Your task to perform on an android device: Go to internet settings Image 0: 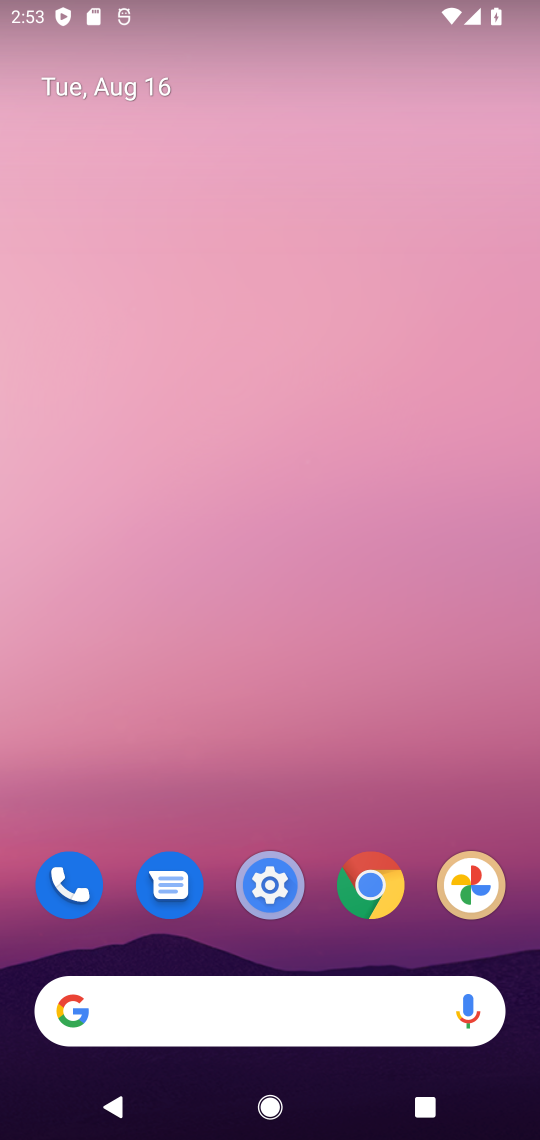
Step 0: drag from (357, 895) to (522, 34)
Your task to perform on an android device: Go to internet settings Image 1: 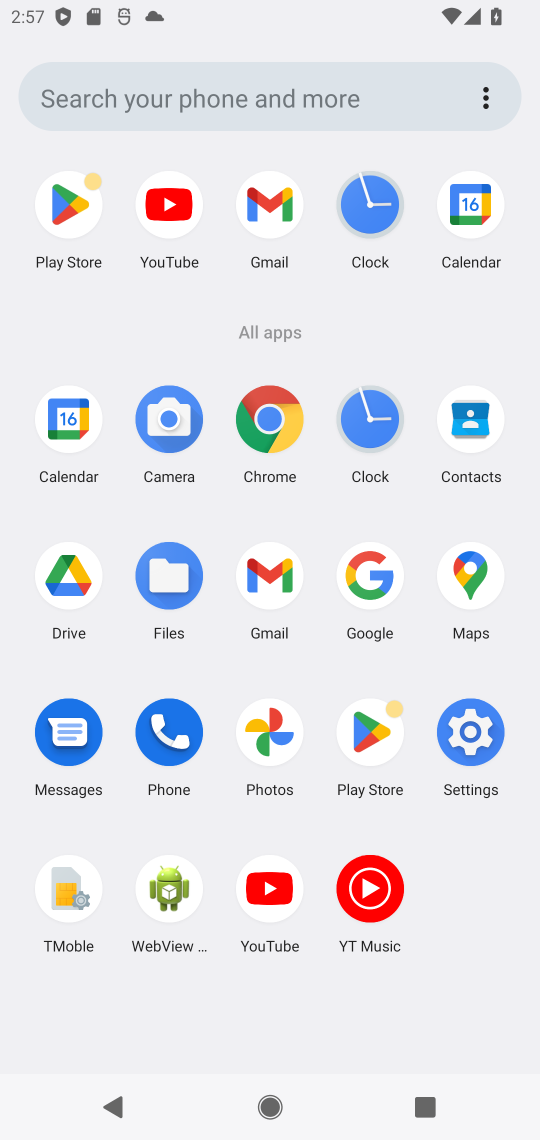
Step 1: click (490, 725)
Your task to perform on an android device: Go to internet settings Image 2: 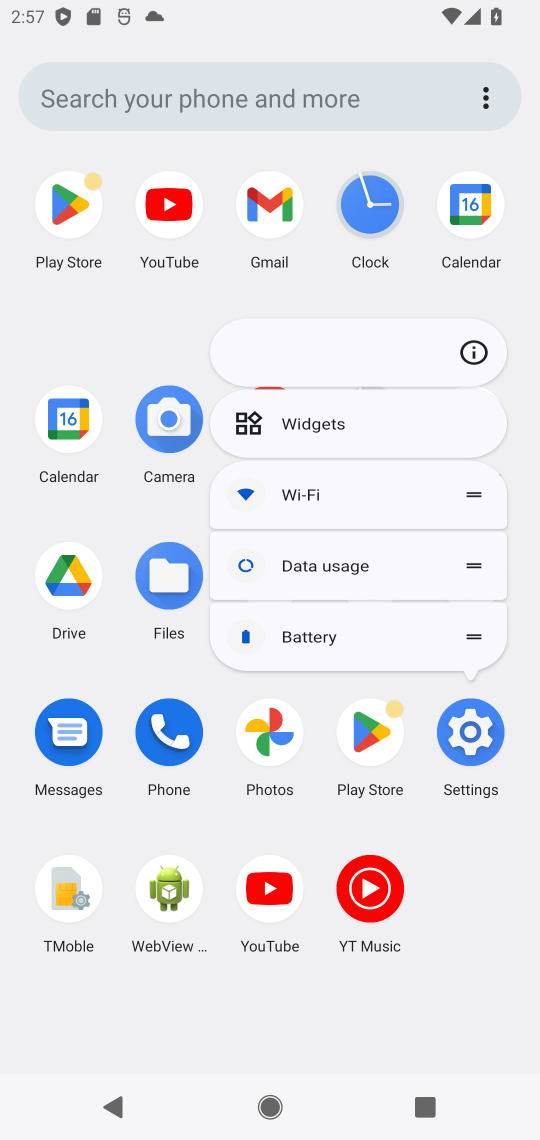
Step 2: click (490, 725)
Your task to perform on an android device: Go to internet settings Image 3: 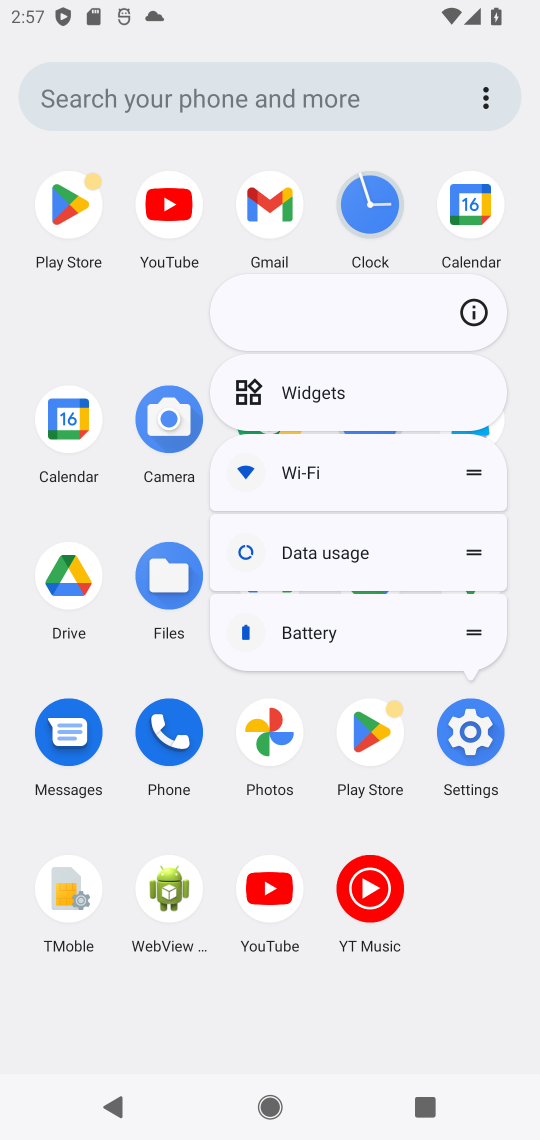
Step 3: click (470, 724)
Your task to perform on an android device: Go to internet settings Image 4: 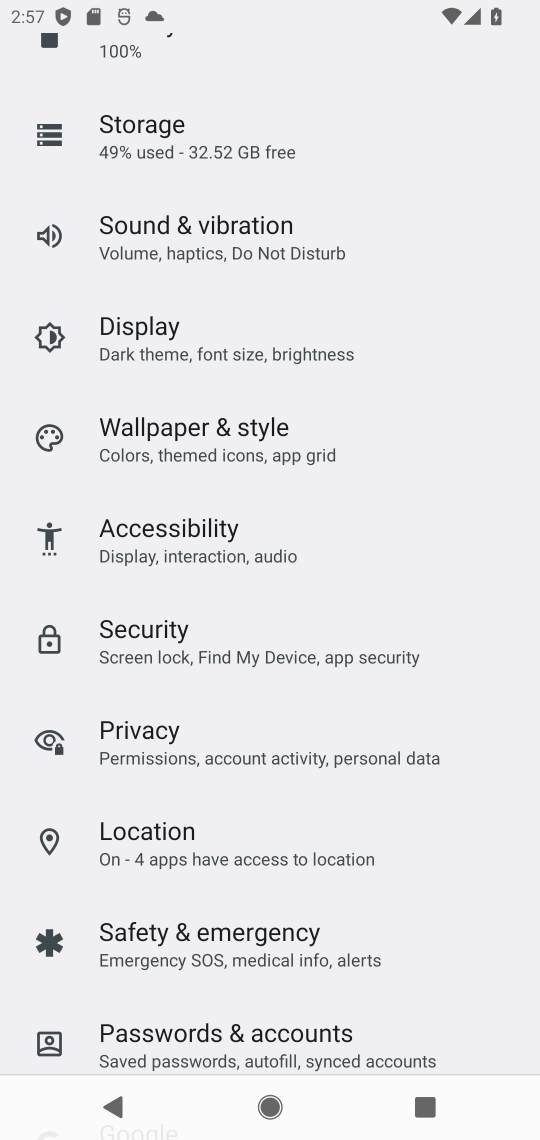
Step 4: drag from (137, 206) to (240, 1104)
Your task to perform on an android device: Go to internet settings Image 5: 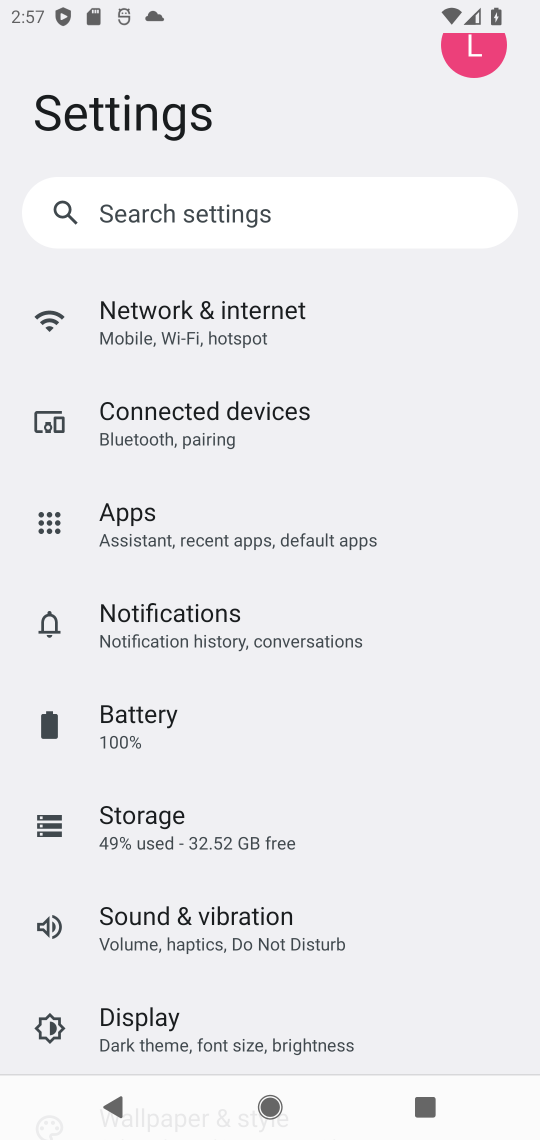
Step 5: click (174, 324)
Your task to perform on an android device: Go to internet settings Image 6: 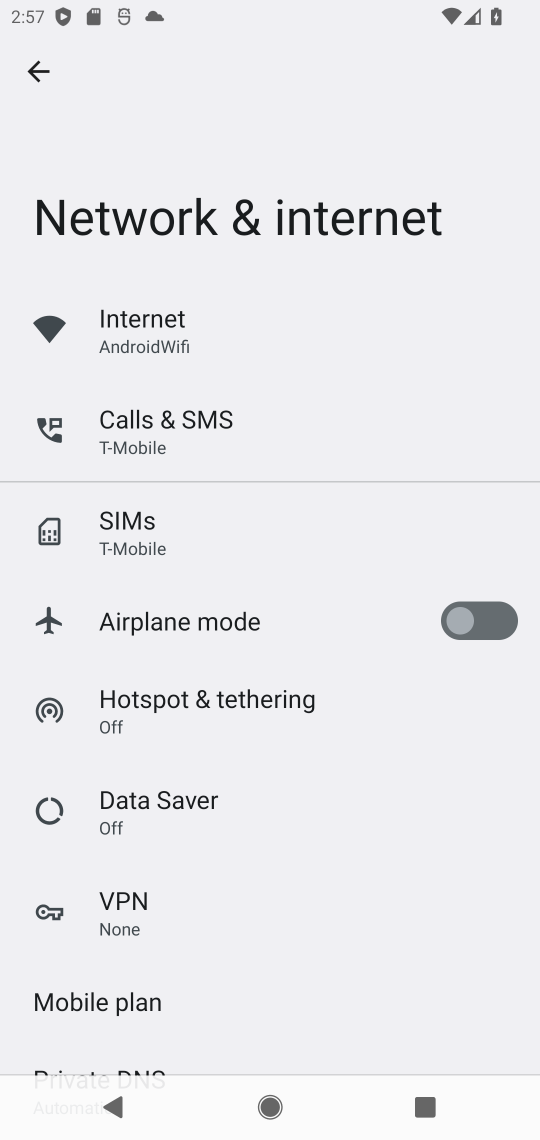
Step 6: task complete